Your task to perform on an android device: Check out the best rated books on Goodreads. Image 0: 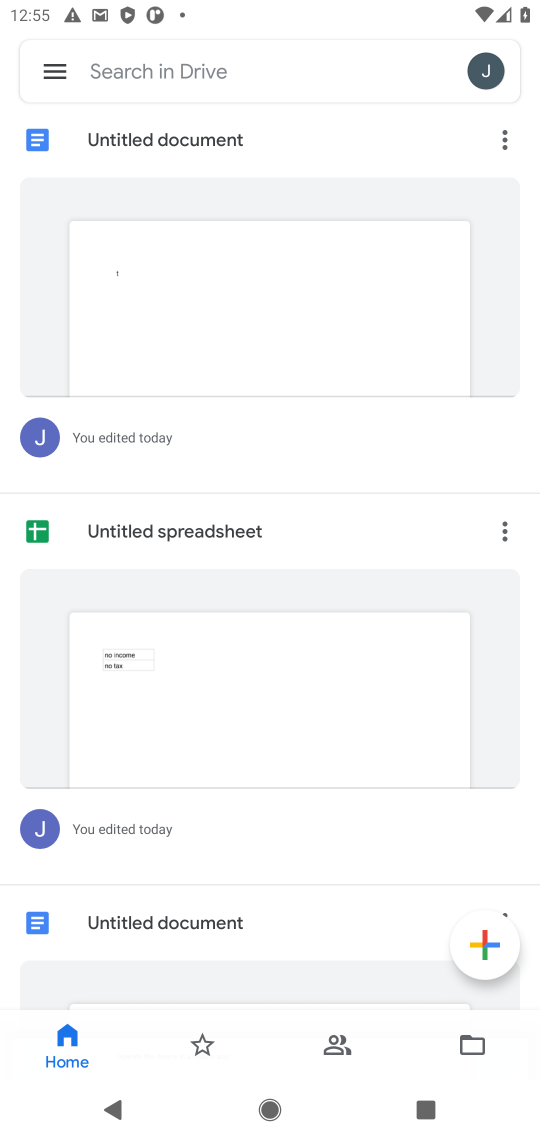
Step 0: press back button
Your task to perform on an android device: Check out the best rated books on Goodreads. Image 1: 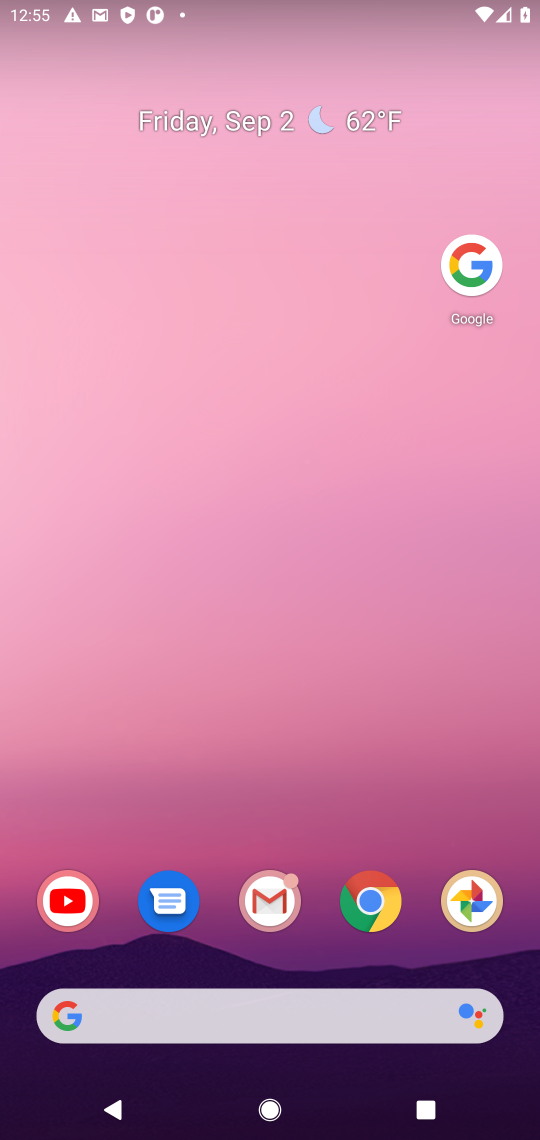
Step 1: click (355, 231)
Your task to perform on an android device: Check out the best rated books on Goodreads. Image 2: 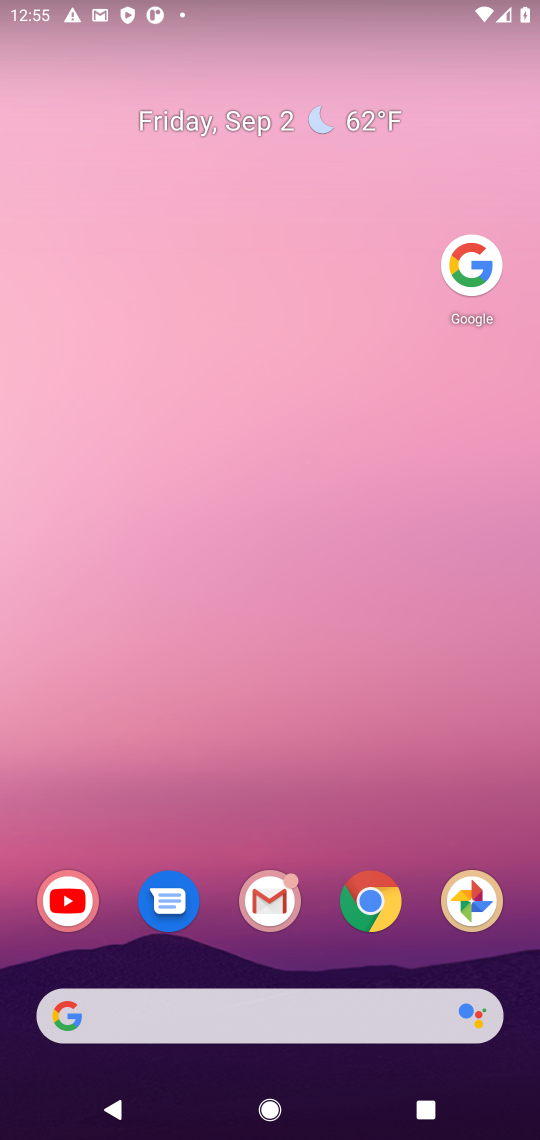
Step 2: drag from (223, 913) to (216, 62)
Your task to perform on an android device: Check out the best rated books on Goodreads. Image 3: 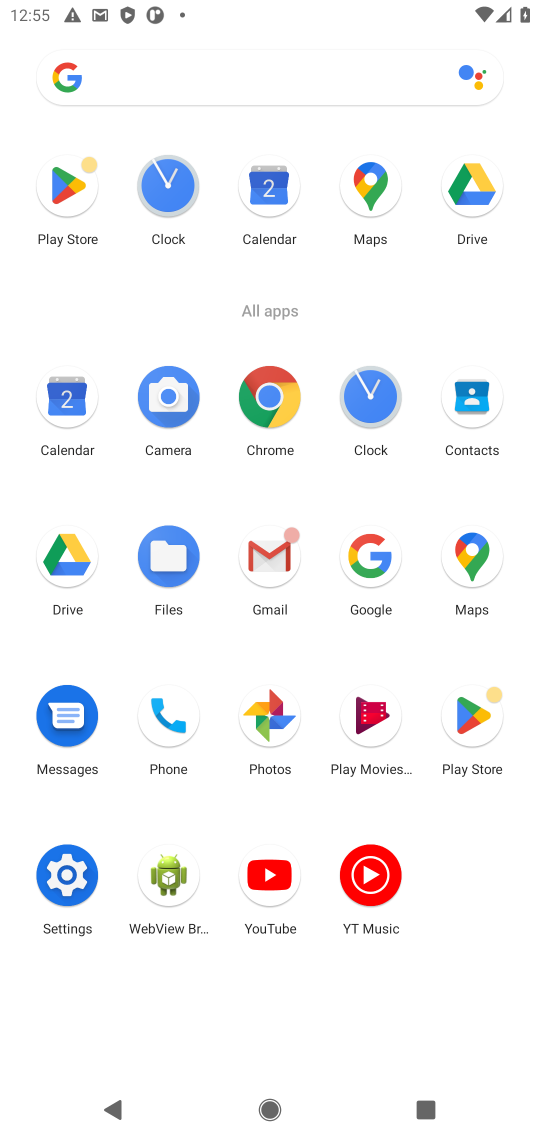
Step 3: click (360, 550)
Your task to perform on an android device: Check out the best rated books on Goodreads. Image 4: 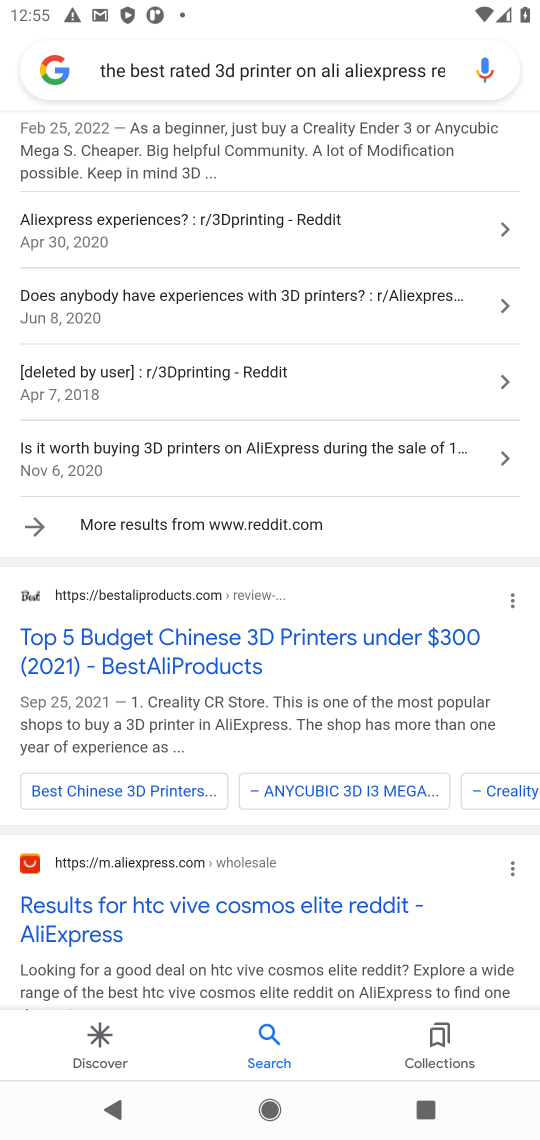
Step 4: click (352, 58)
Your task to perform on an android device: Check out the best rated books on Goodreads. Image 5: 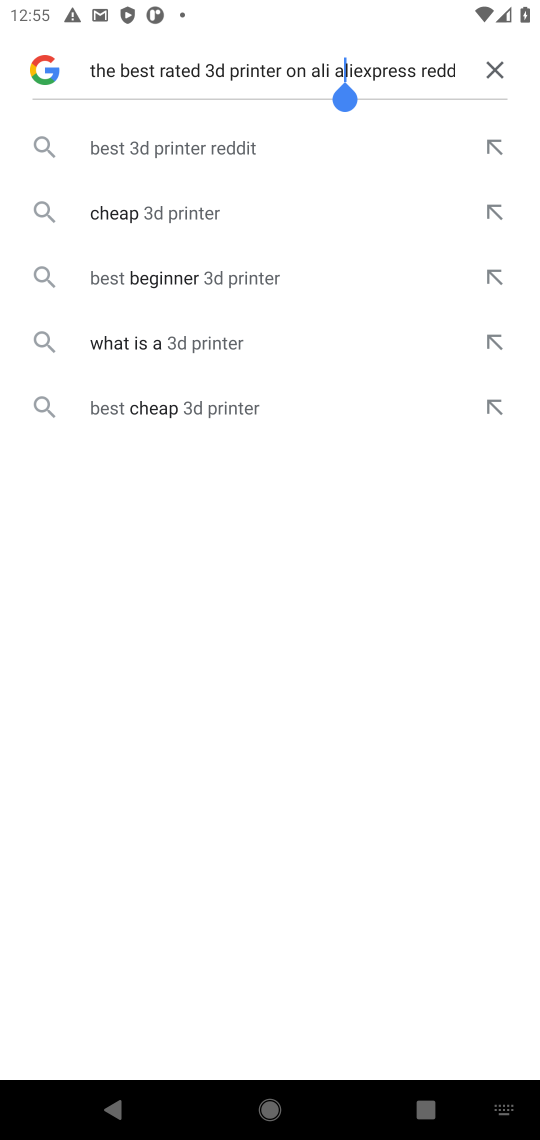
Step 5: click (503, 65)
Your task to perform on an android device: Check out the best rated books on Goodreads. Image 6: 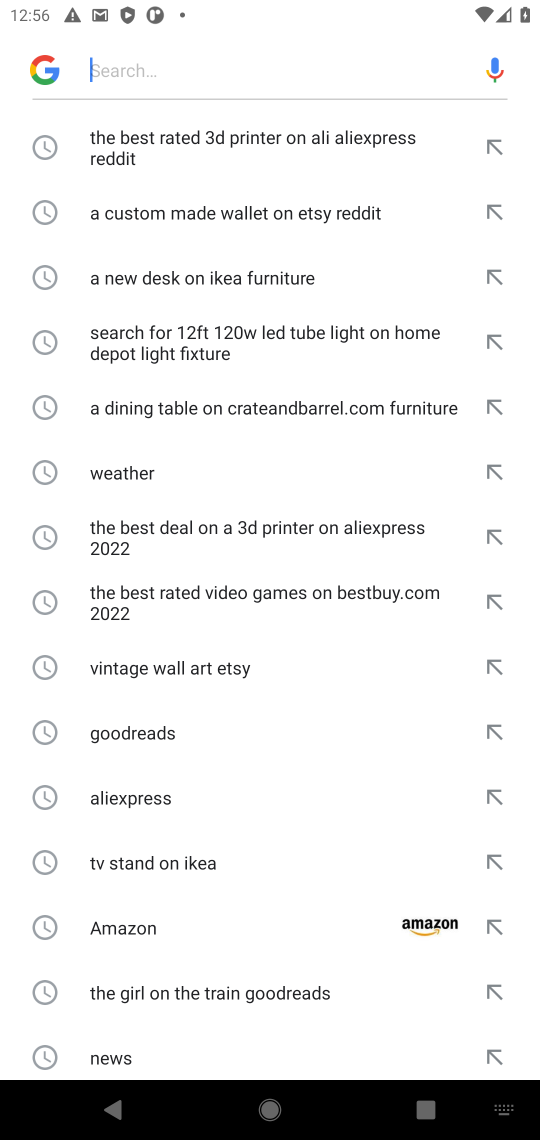
Step 6: click (371, 69)
Your task to perform on an android device: Check out the best rated books on Goodreads. Image 7: 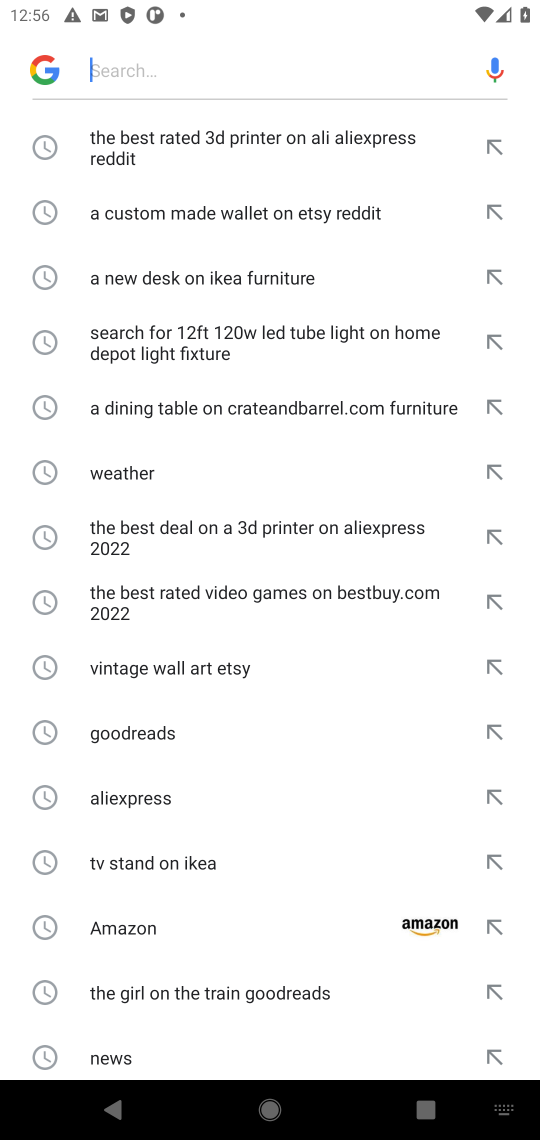
Step 7: type "the best rated books on Goodreads. "
Your task to perform on an android device: Check out the best rated books on Goodreads. Image 8: 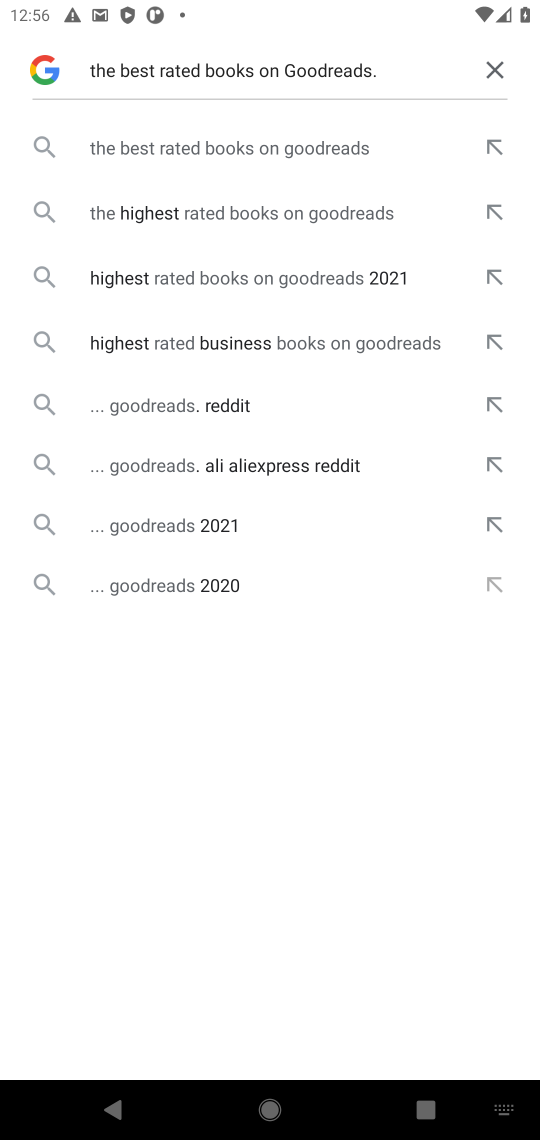
Step 8: click (221, 144)
Your task to perform on an android device: Check out the best rated books on Goodreads. Image 9: 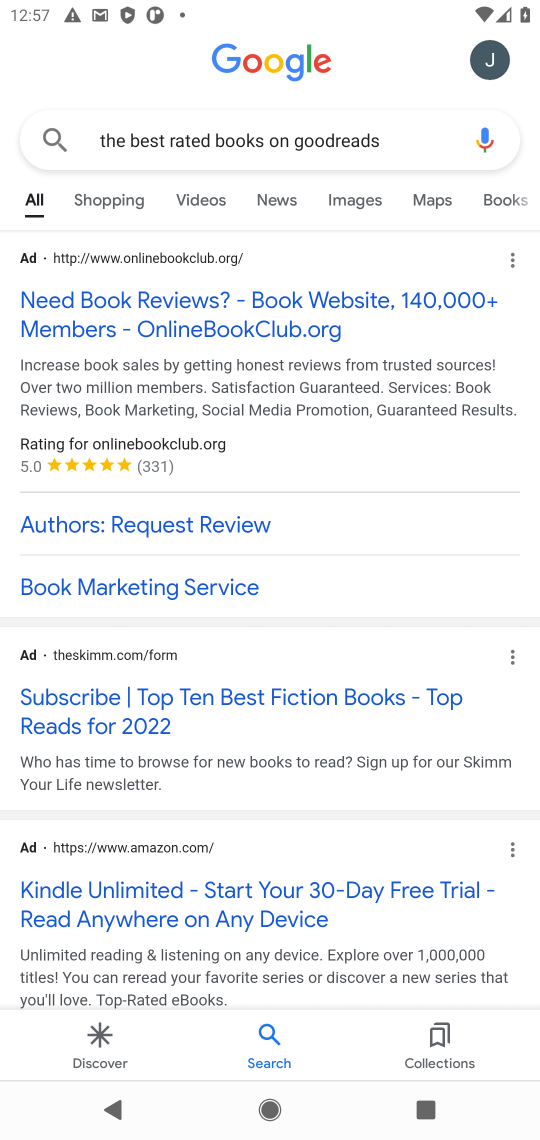
Step 9: drag from (156, 566) to (240, 274)
Your task to perform on an android device: Check out the best rated books on Goodreads. Image 10: 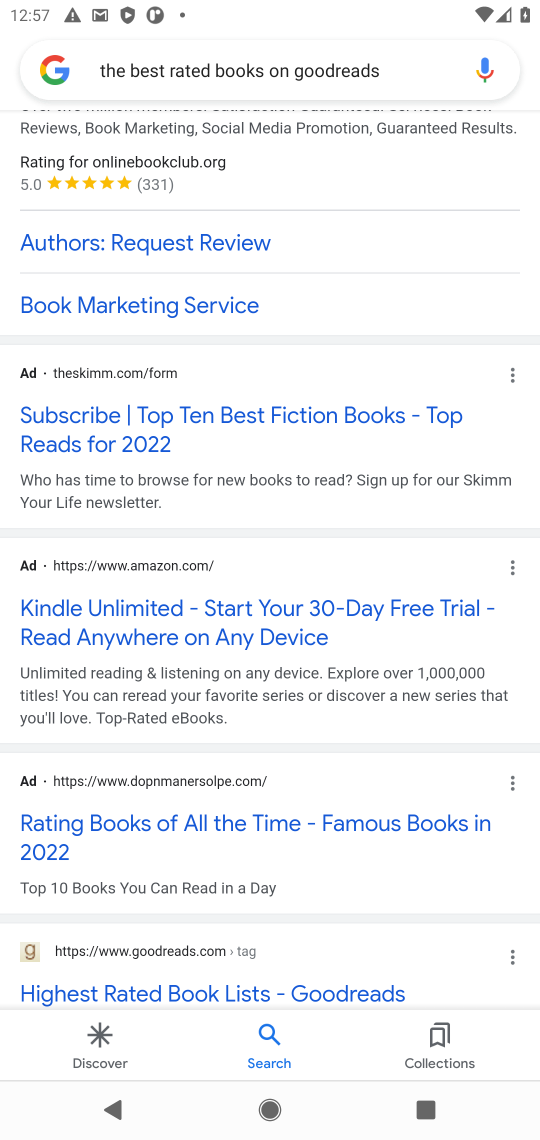
Step 10: drag from (222, 856) to (255, 319)
Your task to perform on an android device: Check out the best rated books on Goodreads. Image 11: 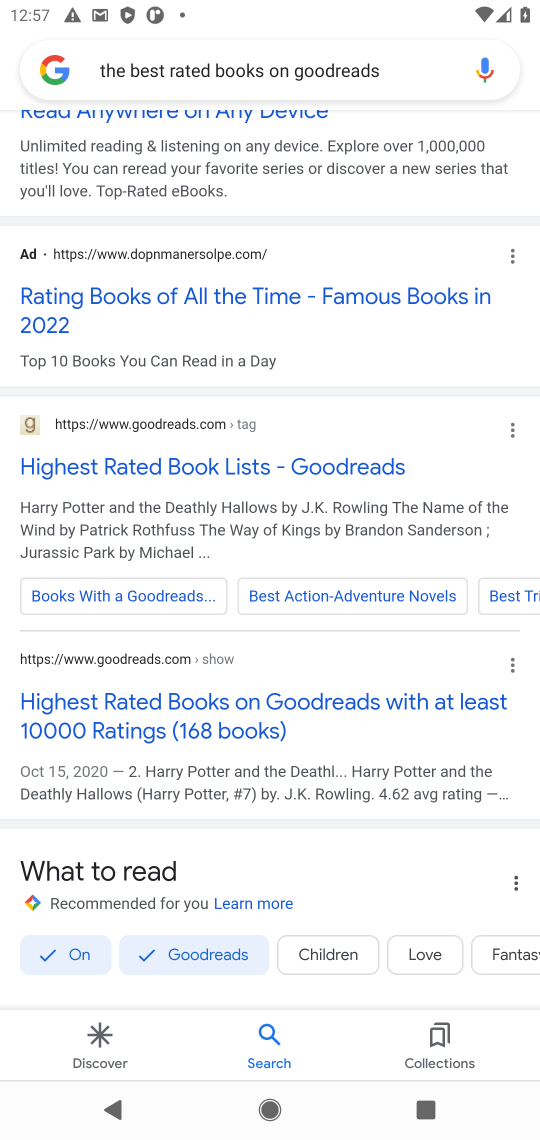
Step 11: click (209, 704)
Your task to perform on an android device: Check out the best rated books on Goodreads. Image 12: 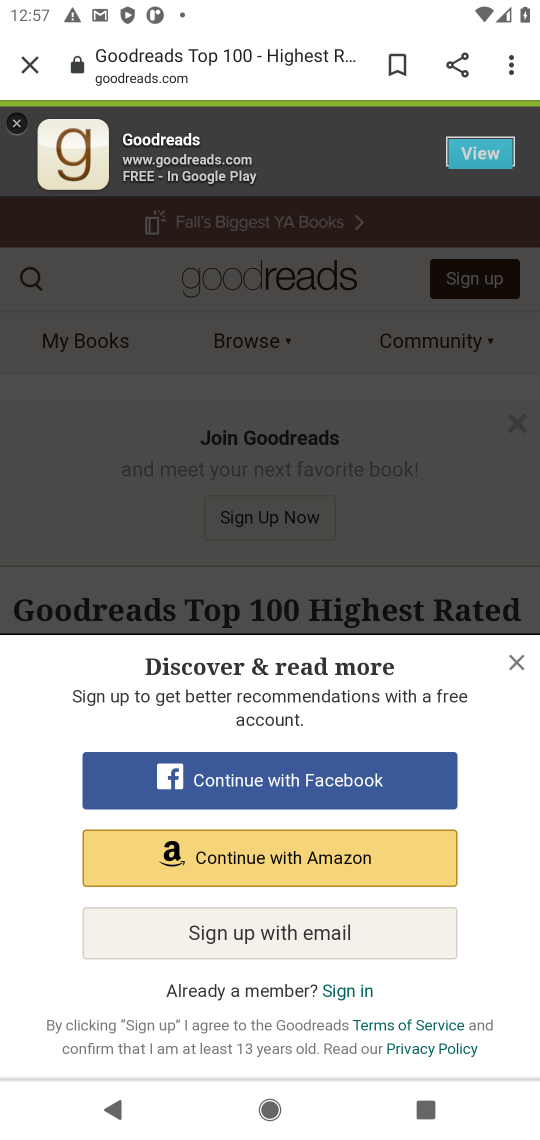
Step 12: click (518, 679)
Your task to perform on an android device: Check out the best rated books on Goodreads. Image 13: 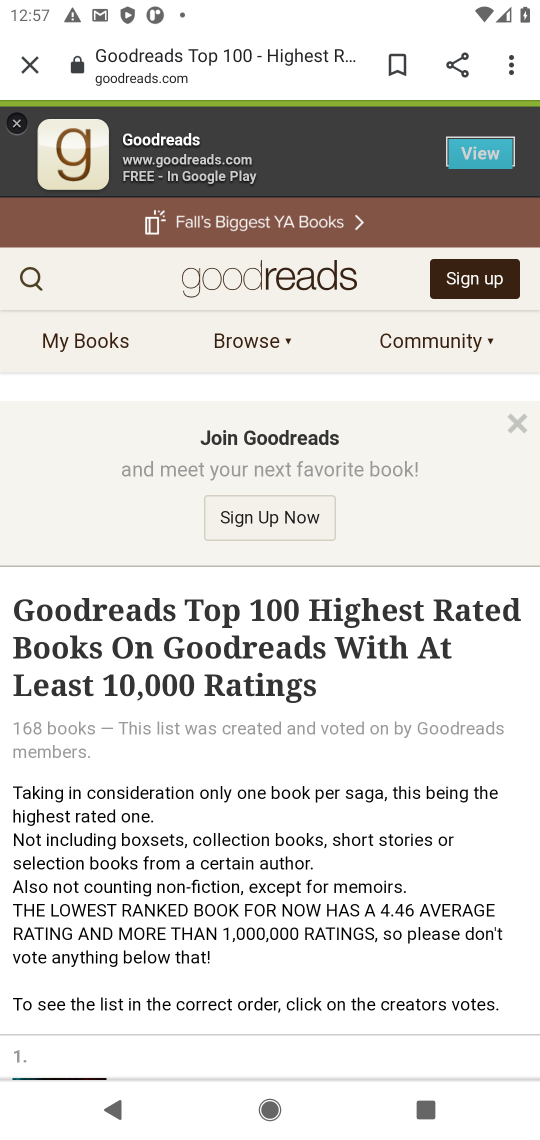
Step 13: click (24, 280)
Your task to perform on an android device: Check out the best rated books on Goodreads. Image 14: 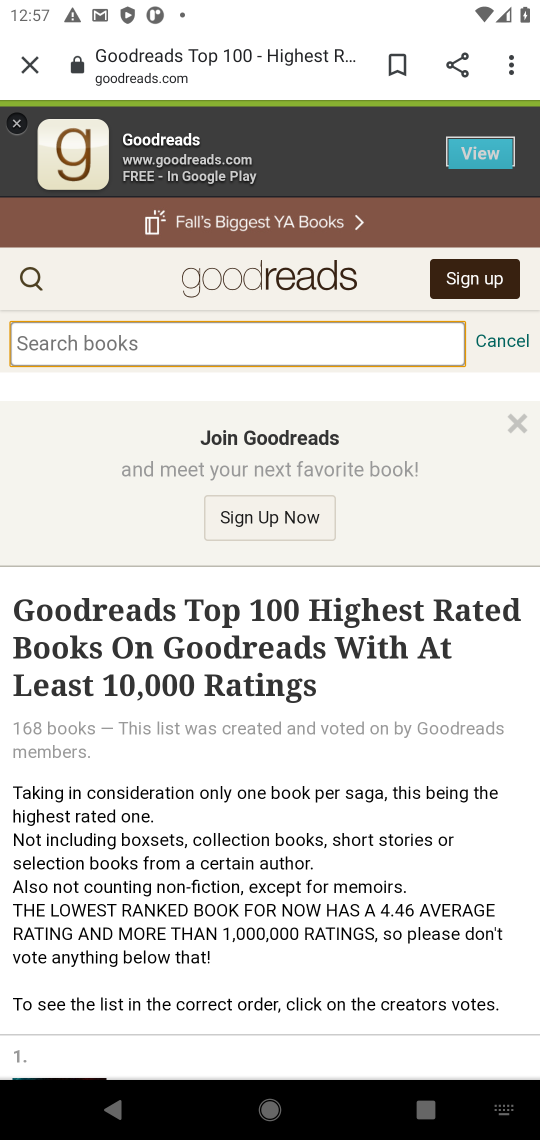
Step 14: click (206, 329)
Your task to perform on an android device: Check out the best rated books on Goodreads. Image 15: 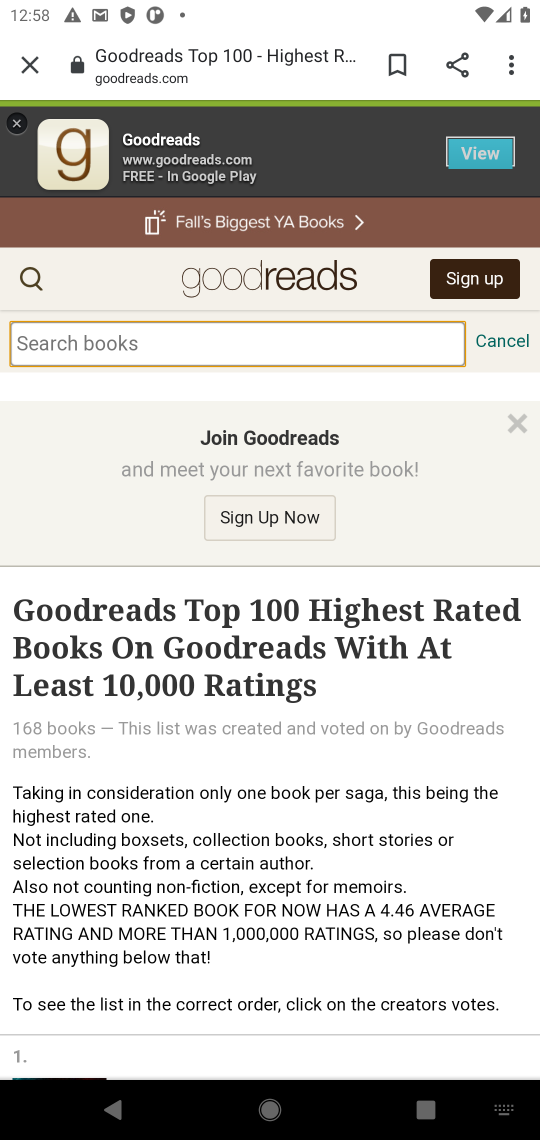
Step 15: type " the best rated books "
Your task to perform on an android device: Check out the best rated books on Goodreads. Image 16: 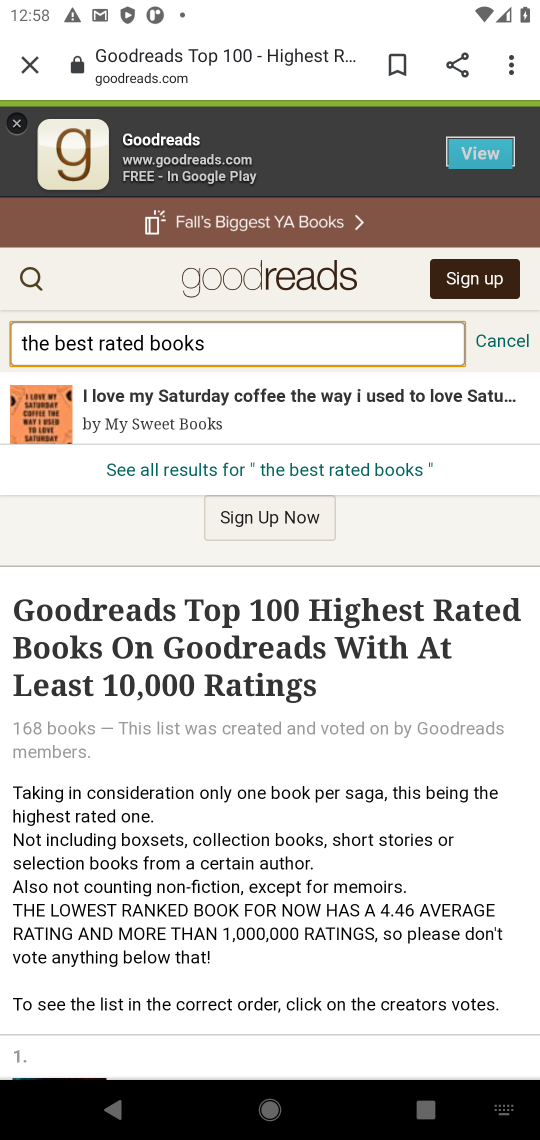
Step 16: task complete